Your task to perform on an android device: Open sound settings Image 0: 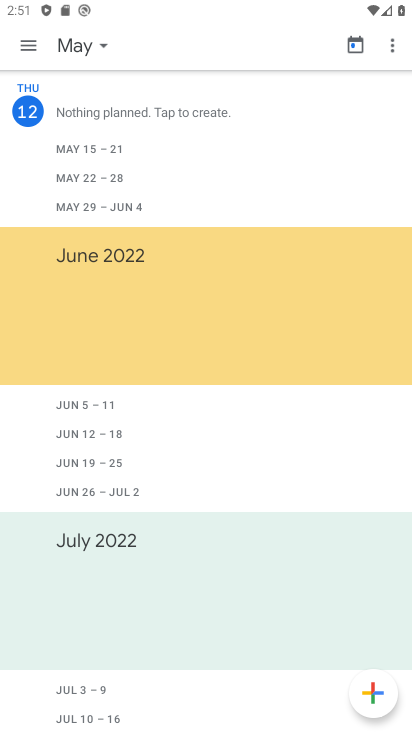
Step 0: press home button
Your task to perform on an android device: Open sound settings Image 1: 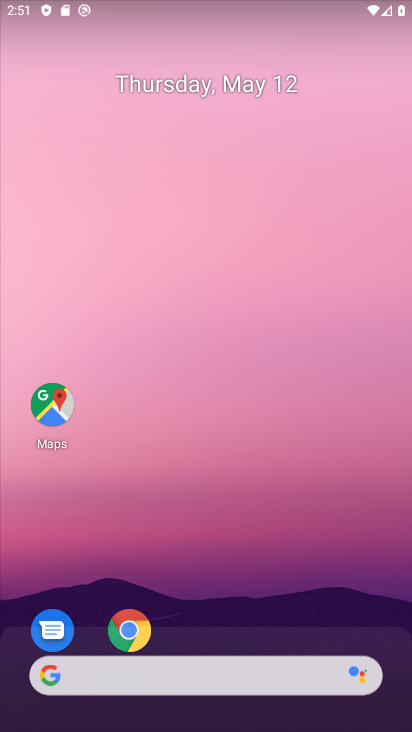
Step 1: drag from (279, 630) to (321, 50)
Your task to perform on an android device: Open sound settings Image 2: 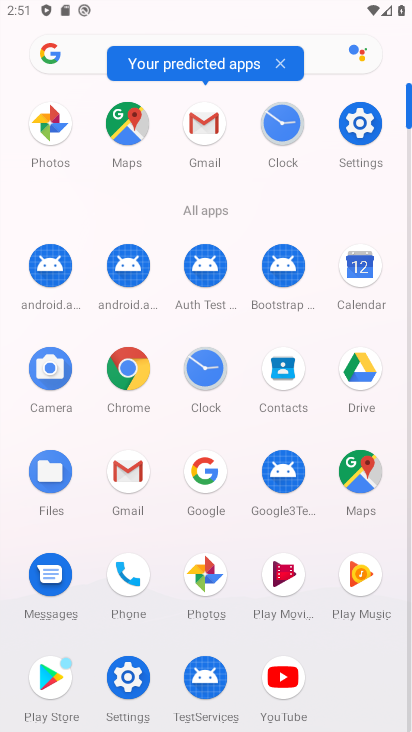
Step 2: click (354, 123)
Your task to perform on an android device: Open sound settings Image 3: 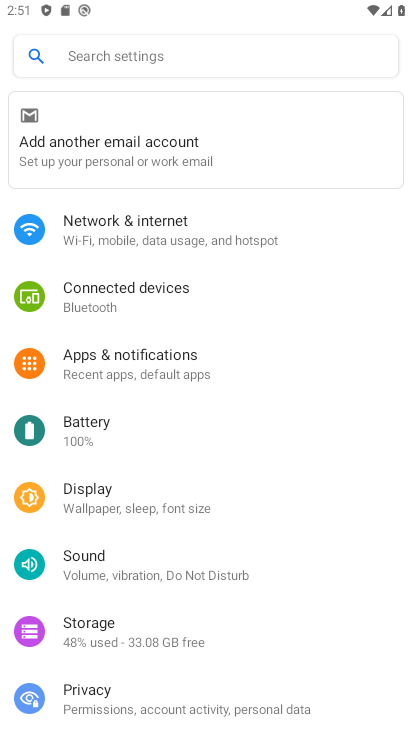
Step 3: click (97, 572)
Your task to perform on an android device: Open sound settings Image 4: 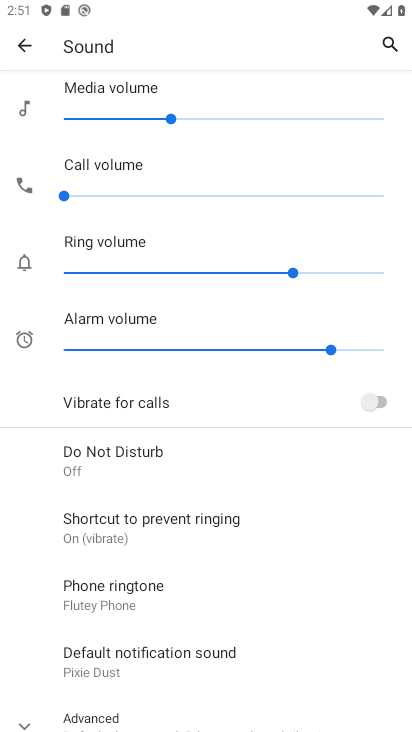
Step 4: task complete